Your task to perform on an android device: Check the news Image 0: 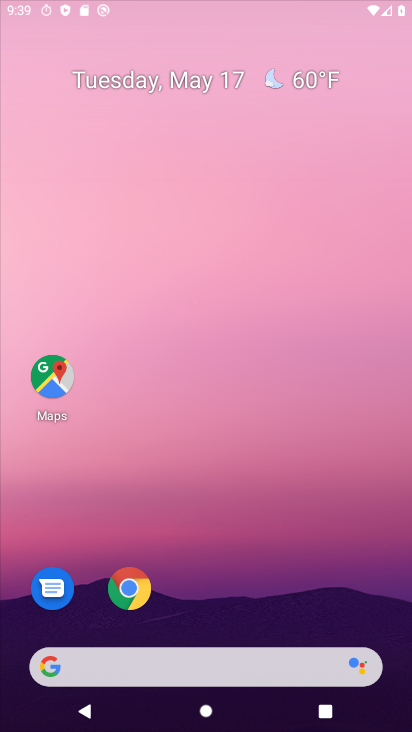
Step 0: drag from (266, 612) to (218, 95)
Your task to perform on an android device: Check the news Image 1: 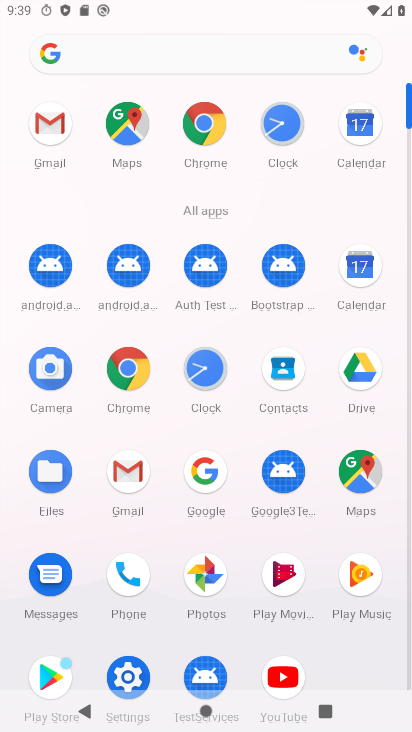
Step 1: task complete